Your task to perform on an android device: Open Chrome and go to settings Image 0: 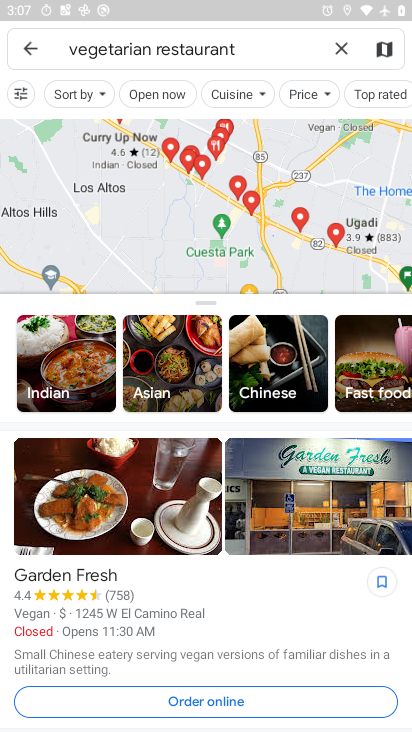
Step 0: press home button
Your task to perform on an android device: Open Chrome and go to settings Image 1: 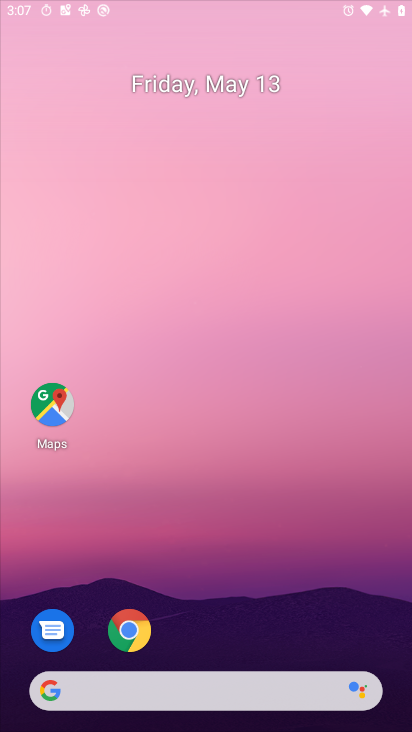
Step 1: drag from (247, 497) to (253, 251)
Your task to perform on an android device: Open Chrome and go to settings Image 2: 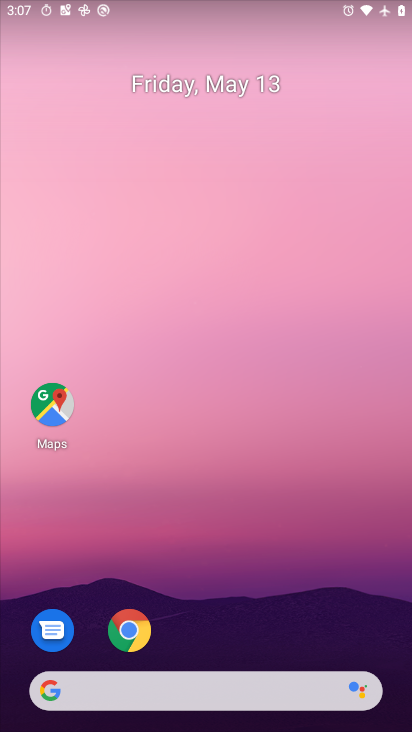
Step 2: drag from (223, 568) to (268, 150)
Your task to perform on an android device: Open Chrome and go to settings Image 3: 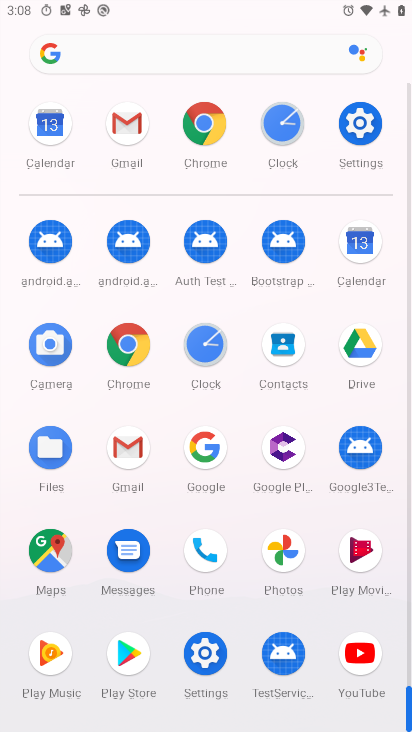
Step 3: click (134, 362)
Your task to perform on an android device: Open Chrome and go to settings Image 4: 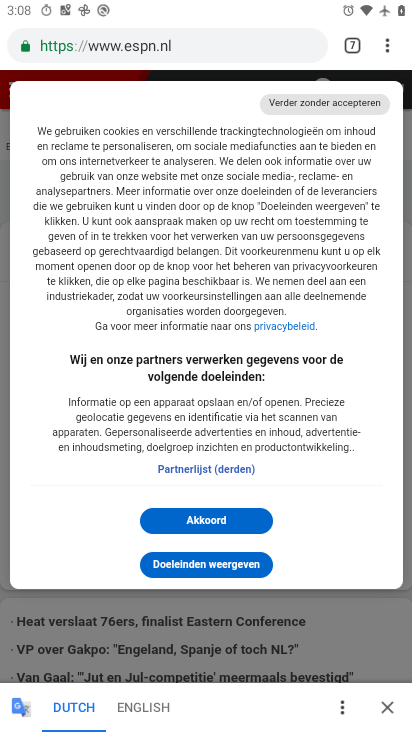
Step 4: click (388, 50)
Your task to perform on an android device: Open Chrome and go to settings Image 5: 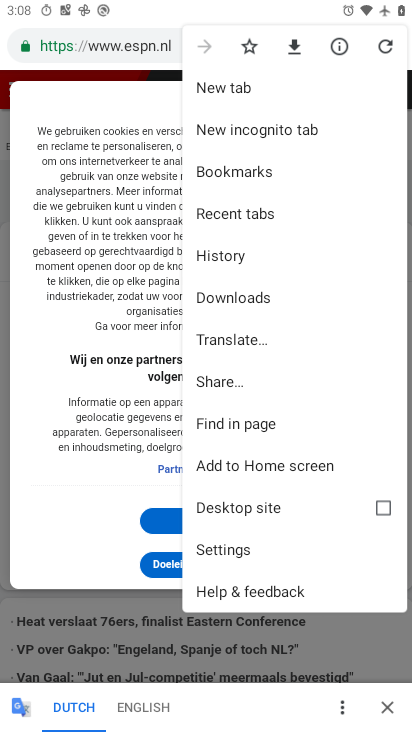
Step 5: click (255, 555)
Your task to perform on an android device: Open Chrome and go to settings Image 6: 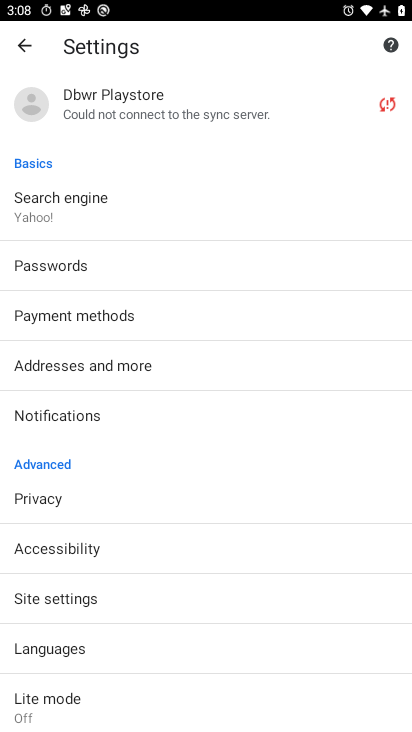
Step 6: task complete